Your task to perform on an android device: toggle location history Image 0: 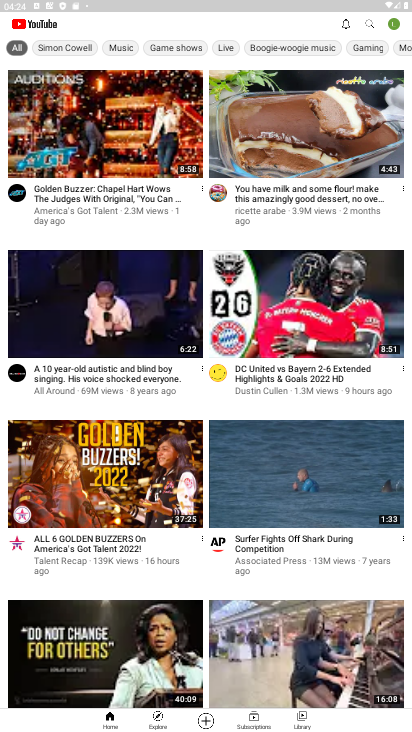
Step 0: press home button
Your task to perform on an android device: toggle location history Image 1: 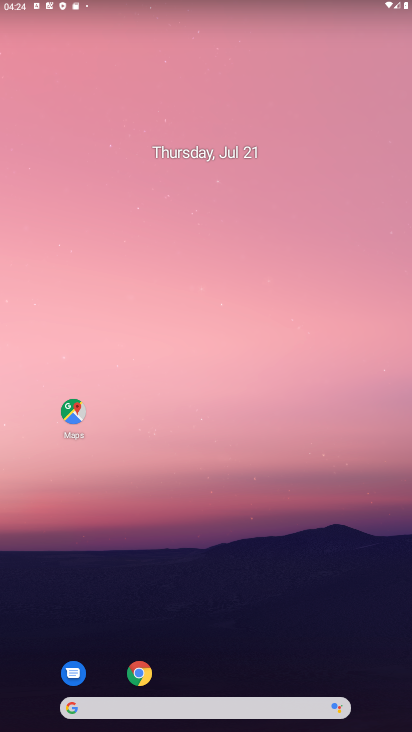
Step 1: click (353, 568)
Your task to perform on an android device: toggle location history Image 2: 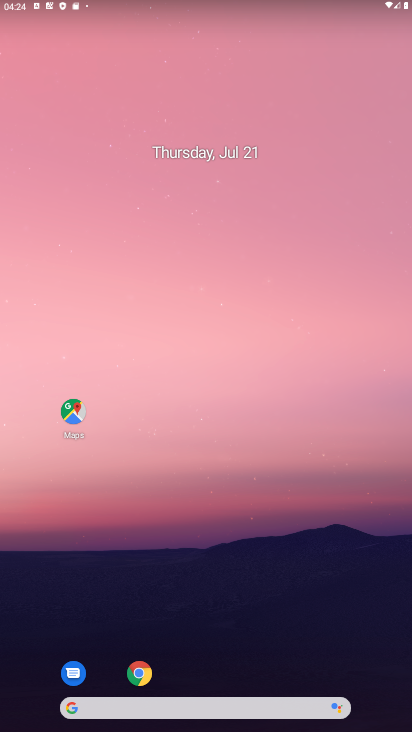
Step 2: click (73, 410)
Your task to perform on an android device: toggle location history Image 3: 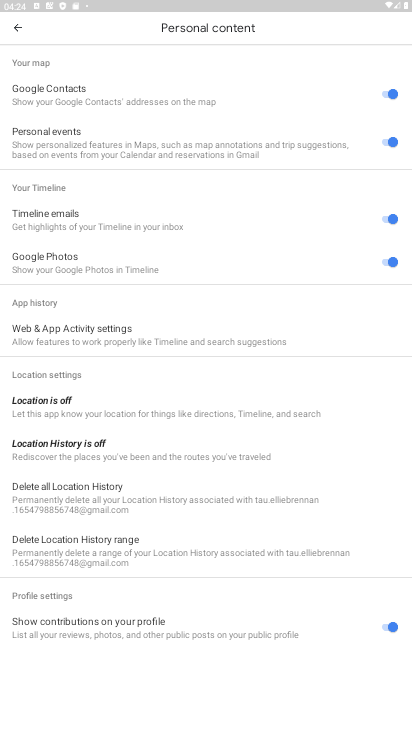
Step 3: click (54, 446)
Your task to perform on an android device: toggle location history Image 4: 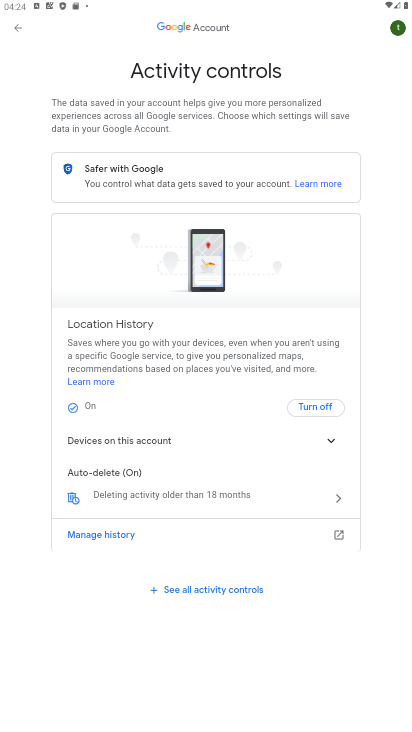
Step 4: click (312, 405)
Your task to perform on an android device: toggle location history Image 5: 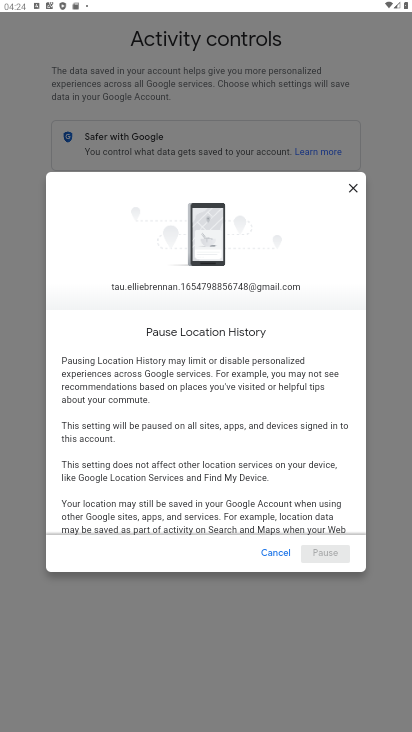
Step 5: drag from (306, 507) to (288, 254)
Your task to perform on an android device: toggle location history Image 6: 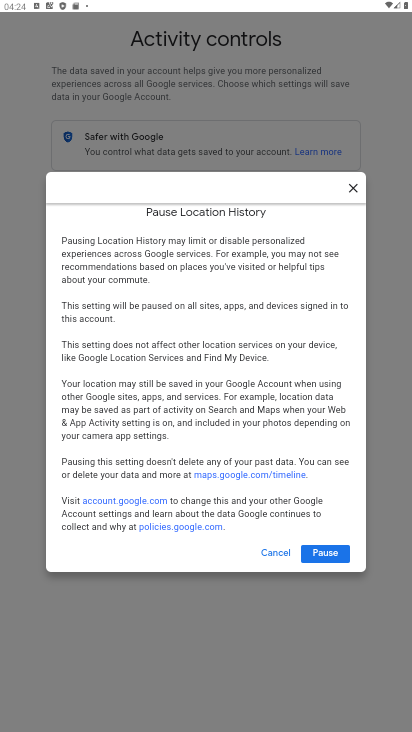
Step 6: click (326, 553)
Your task to perform on an android device: toggle location history Image 7: 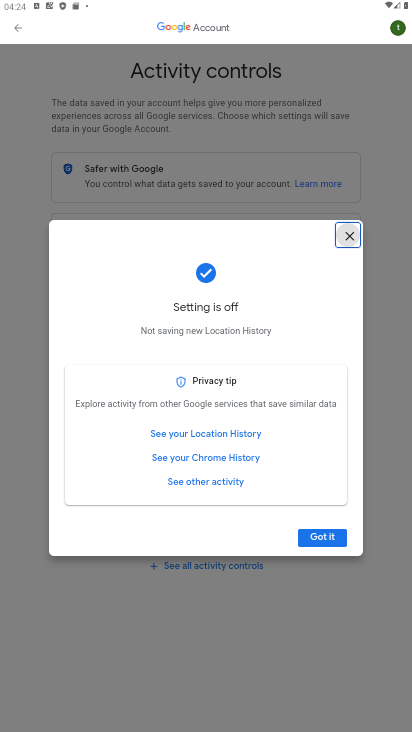
Step 7: click (318, 533)
Your task to perform on an android device: toggle location history Image 8: 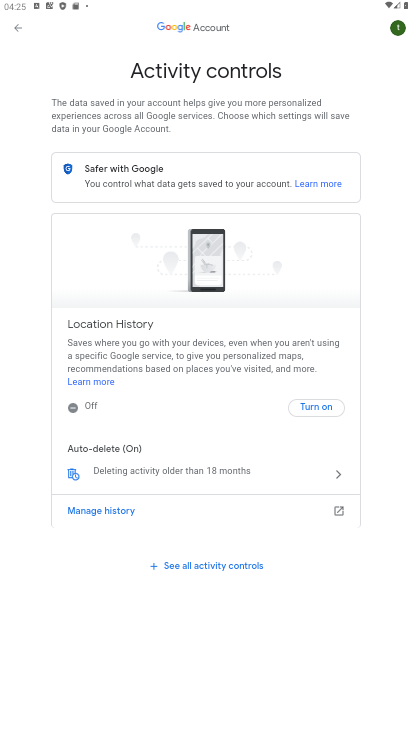
Step 8: task complete